Your task to perform on an android device: Turn off the flashlight Image 0: 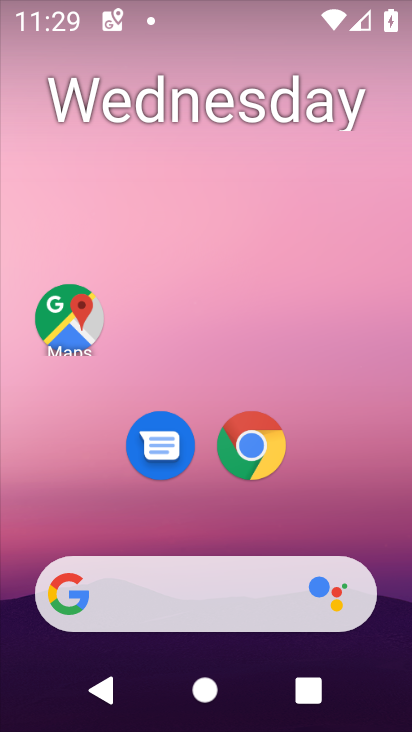
Step 0: drag from (332, 501) to (371, 201)
Your task to perform on an android device: Turn off the flashlight Image 1: 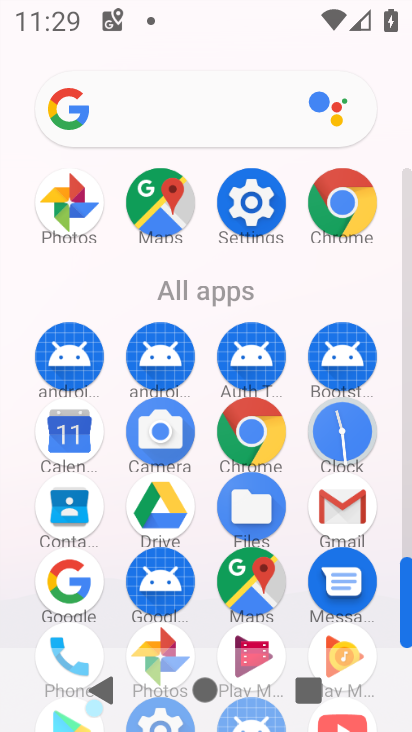
Step 1: click (265, 194)
Your task to perform on an android device: Turn off the flashlight Image 2: 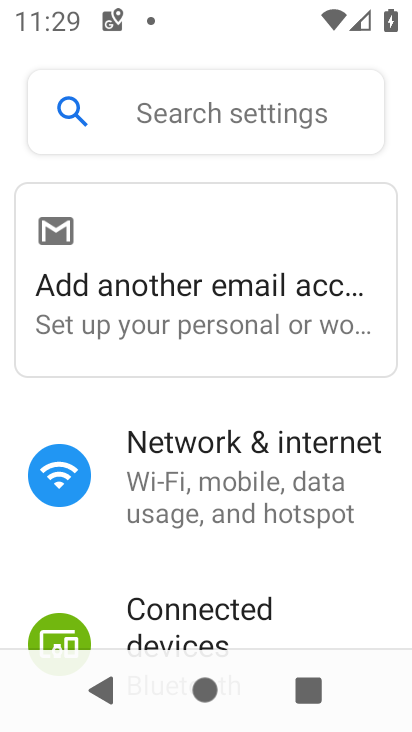
Step 2: click (243, 133)
Your task to perform on an android device: Turn off the flashlight Image 3: 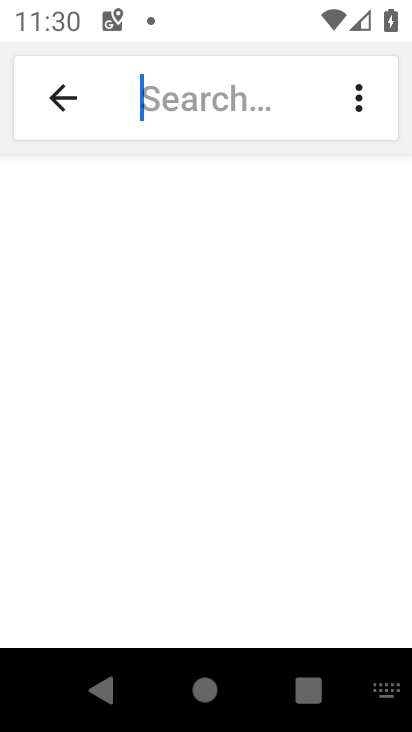
Step 3: type "flashlight"
Your task to perform on an android device: Turn off the flashlight Image 4: 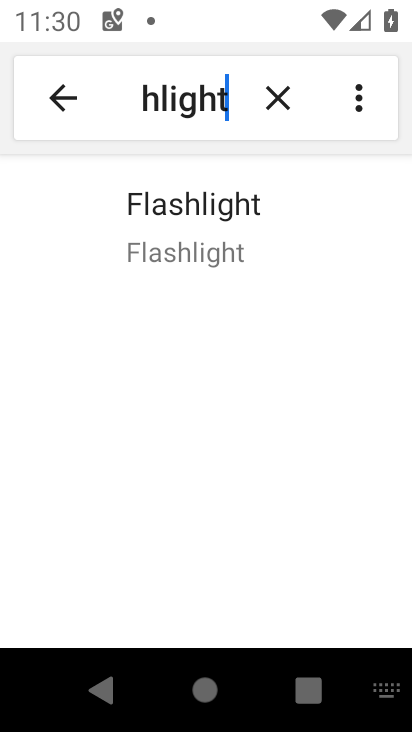
Step 4: click (232, 243)
Your task to perform on an android device: Turn off the flashlight Image 5: 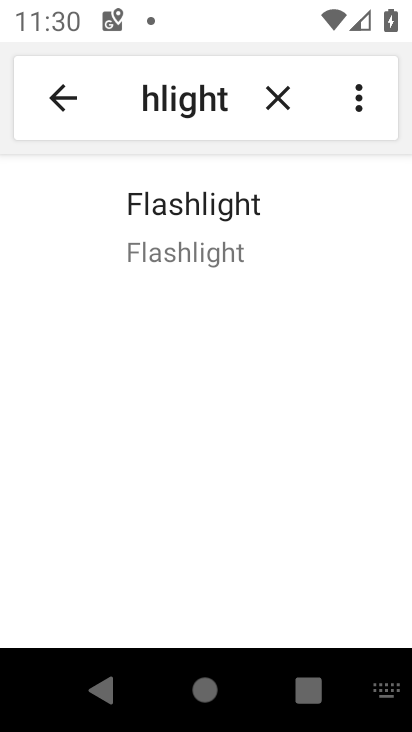
Step 5: task complete